Your task to perform on an android device: turn on javascript in the chrome app Image 0: 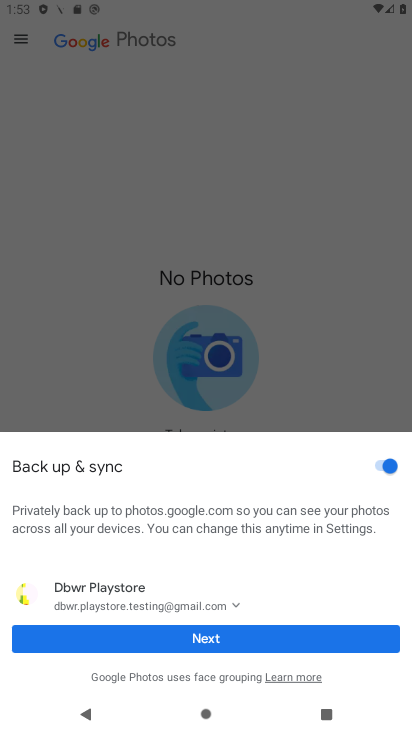
Step 0: press home button
Your task to perform on an android device: turn on javascript in the chrome app Image 1: 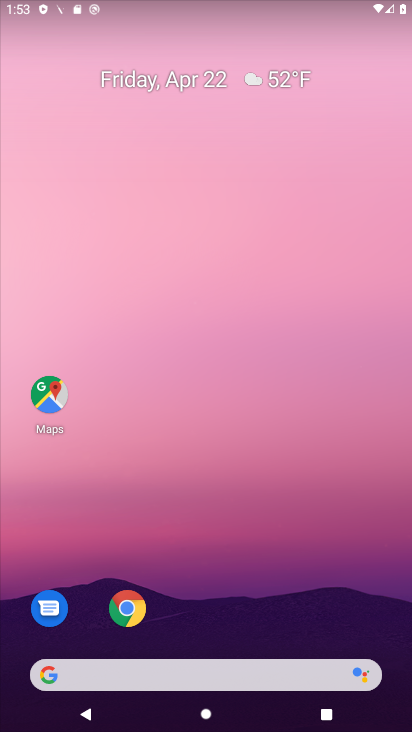
Step 1: click (125, 601)
Your task to perform on an android device: turn on javascript in the chrome app Image 2: 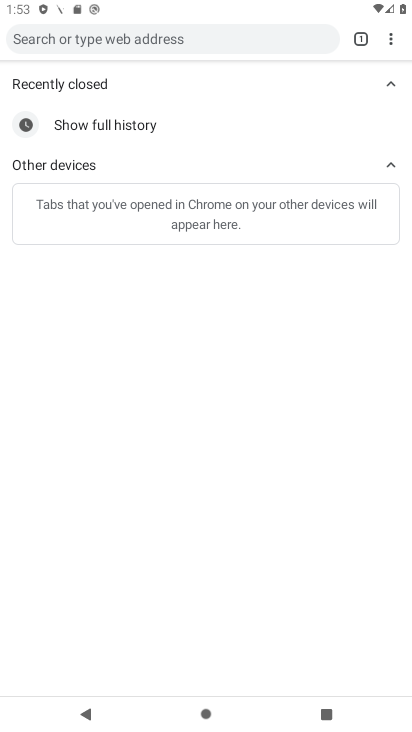
Step 2: click (392, 38)
Your task to perform on an android device: turn on javascript in the chrome app Image 3: 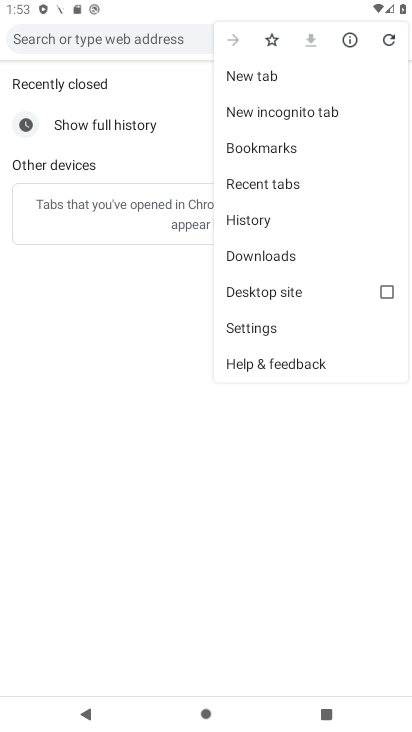
Step 3: click (278, 322)
Your task to perform on an android device: turn on javascript in the chrome app Image 4: 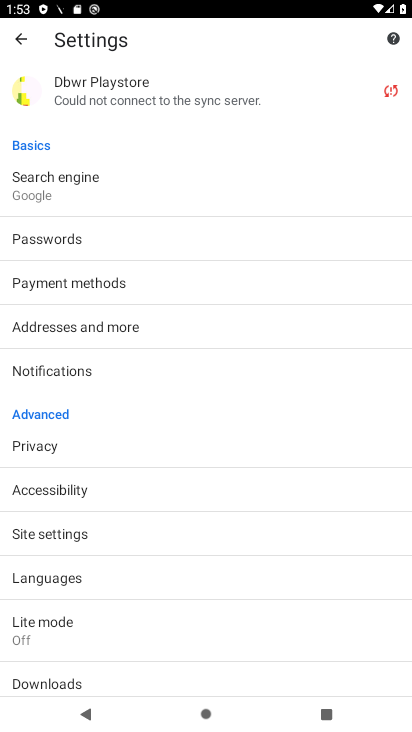
Step 4: click (81, 535)
Your task to perform on an android device: turn on javascript in the chrome app Image 5: 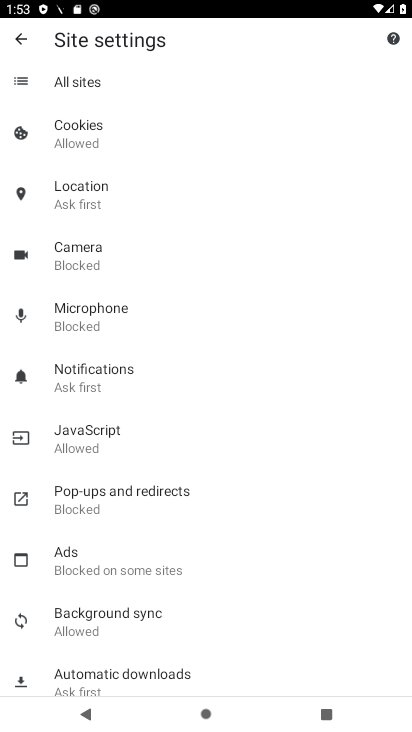
Step 5: click (116, 430)
Your task to perform on an android device: turn on javascript in the chrome app Image 6: 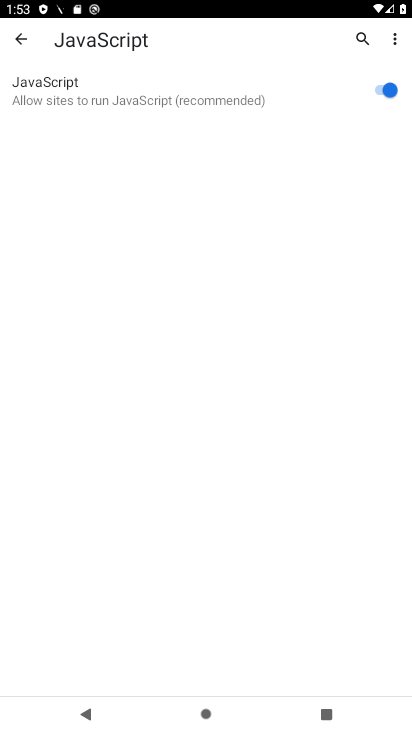
Step 6: task complete